Your task to perform on an android device: When is my next appointment? Image 0: 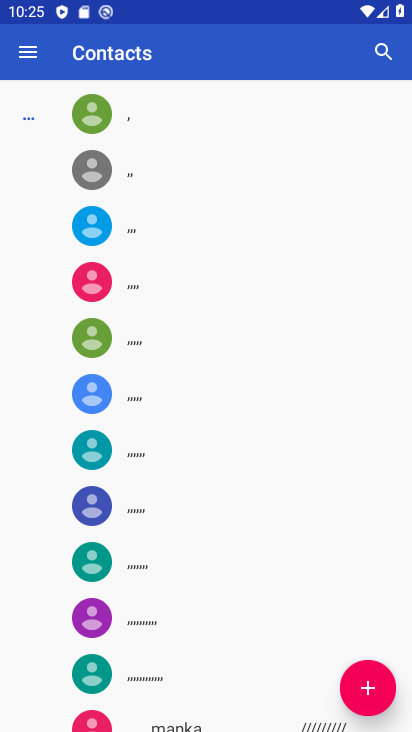
Step 0: task complete